Your task to perform on an android device: toggle pop-ups in chrome Image 0: 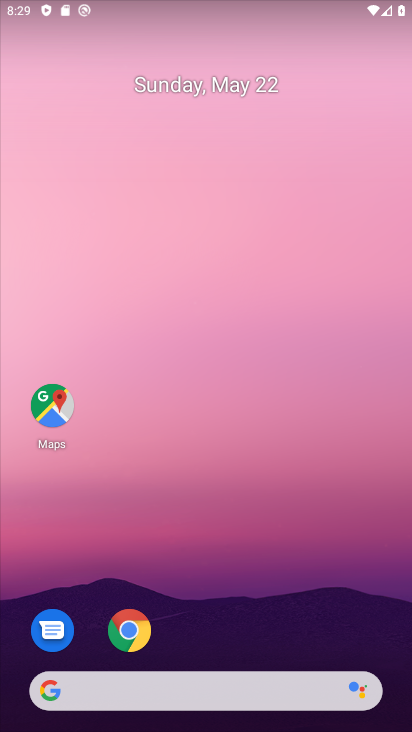
Step 0: drag from (299, 628) to (246, 116)
Your task to perform on an android device: toggle pop-ups in chrome Image 1: 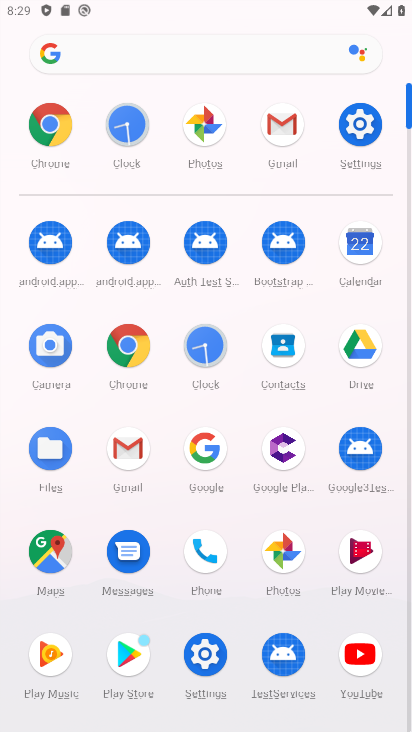
Step 1: click (52, 162)
Your task to perform on an android device: toggle pop-ups in chrome Image 2: 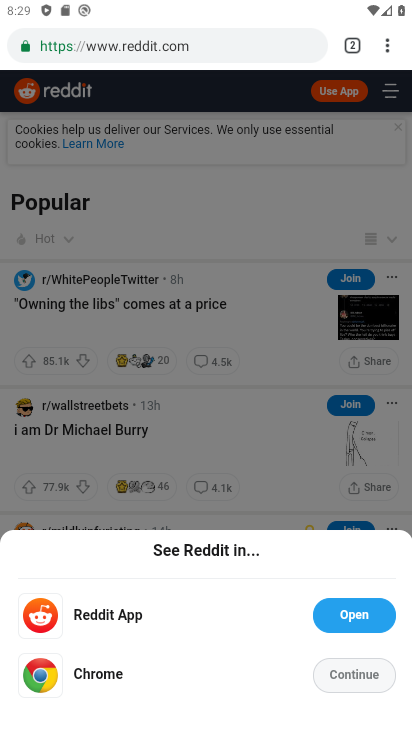
Step 2: click (391, 63)
Your task to perform on an android device: toggle pop-ups in chrome Image 3: 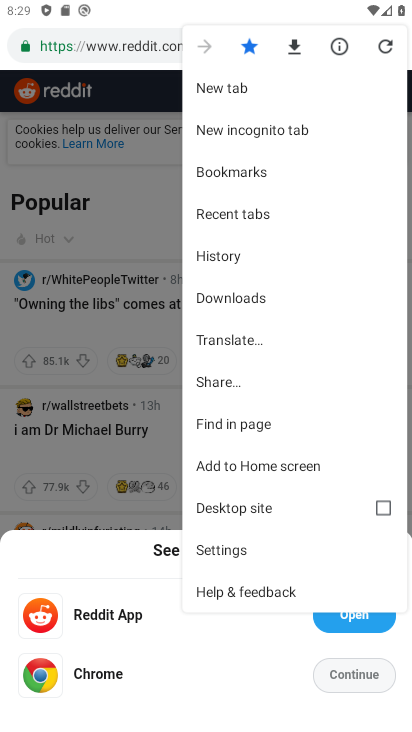
Step 3: click (254, 558)
Your task to perform on an android device: toggle pop-ups in chrome Image 4: 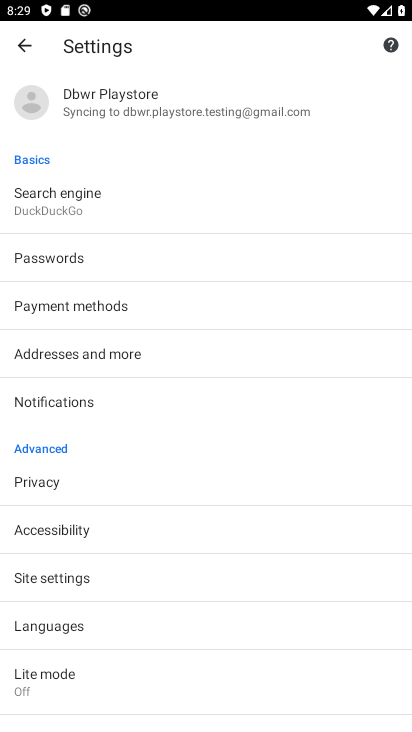
Step 4: click (204, 567)
Your task to perform on an android device: toggle pop-ups in chrome Image 5: 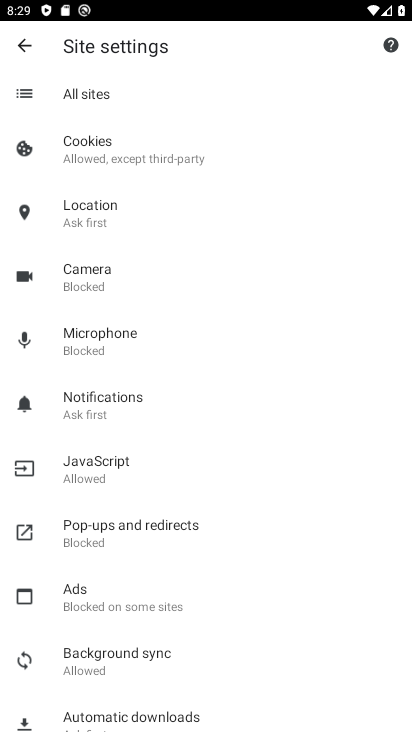
Step 5: click (165, 527)
Your task to perform on an android device: toggle pop-ups in chrome Image 6: 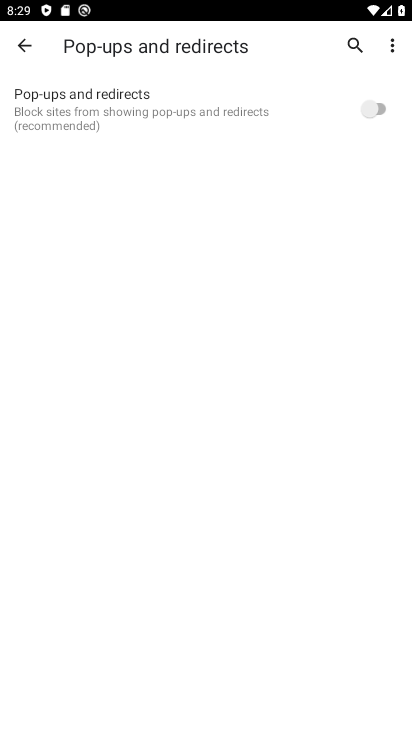
Step 6: click (359, 111)
Your task to perform on an android device: toggle pop-ups in chrome Image 7: 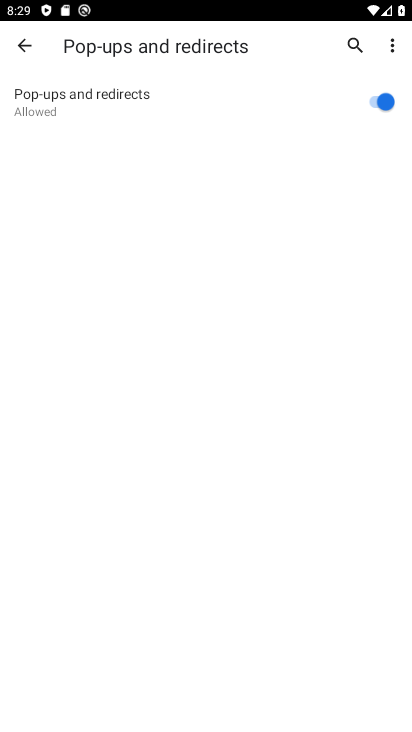
Step 7: task complete